Your task to perform on an android device: turn on sleep mode Image 0: 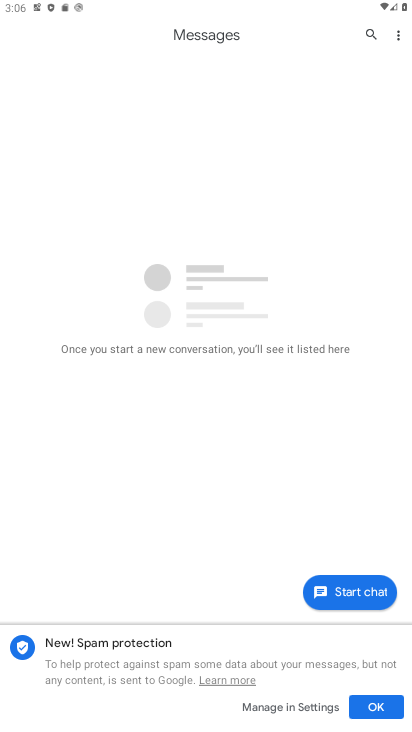
Step 0: press home button
Your task to perform on an android device: turn on sleep mode Image 1: 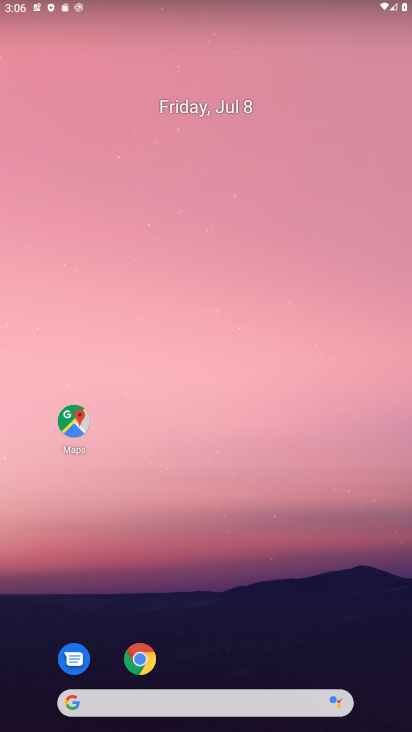
Step 1: drag from (206, 647) to (253, 264)
Your task to perform on an android device: turn on sleep mode Image 2: 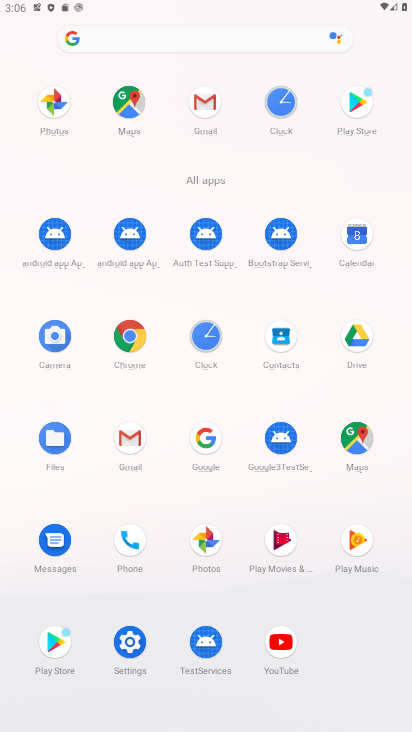
Step 2: click (130, 634)
Your task to perform on an android device: turn on sleep mode Image 3: 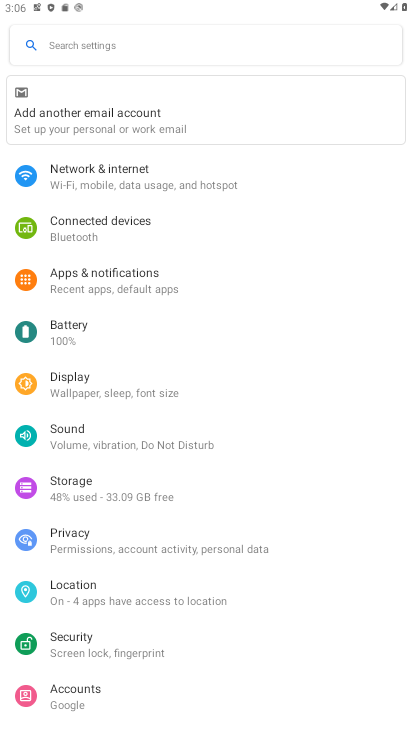
Step 3: click (106, 401)
Your task to perform on an android device: turn on sleep mode Image 4: 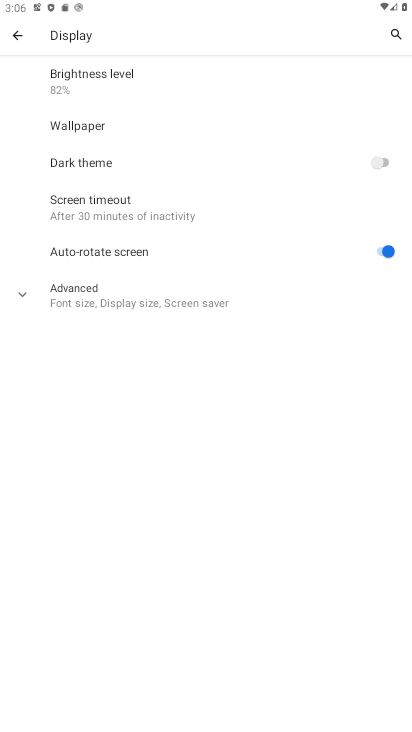
Step 4: click (149, 215)
Your task to perform on an android device: turn on sleep mode Image 5: 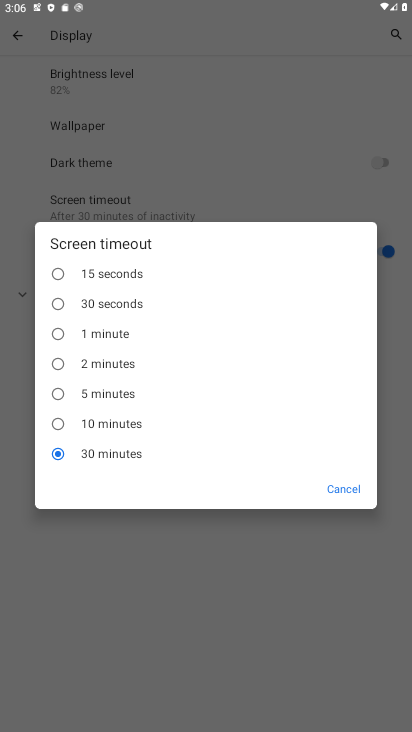
Step 5: click (99, 330)
Your task to perform on an android device: turn on sleep mode Image 6: 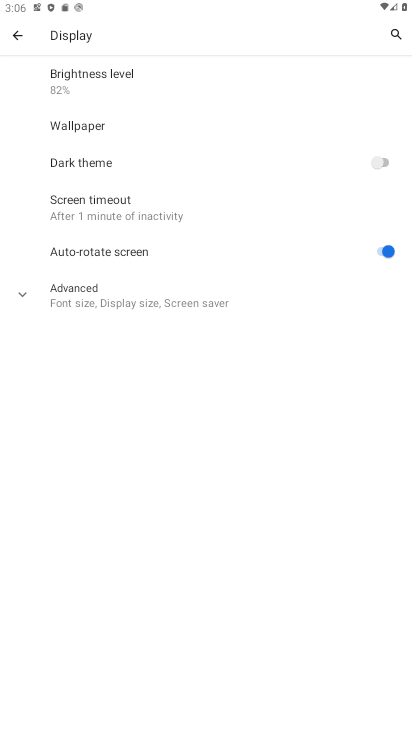
Step 6: task complete